Your task to perform on an android device: Open display settings Image 0: 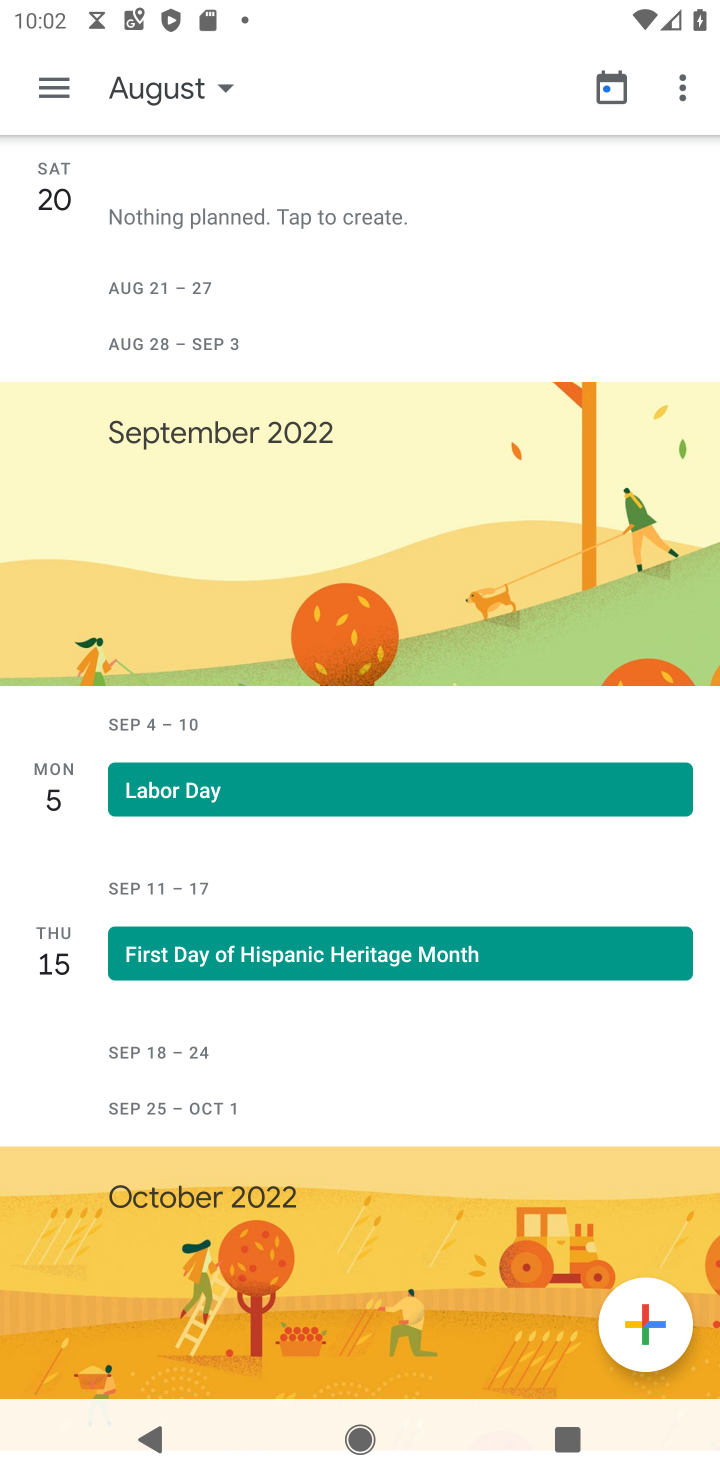
Step 0: press home button
Your task to perform on an android device: Open display settings Image 1: 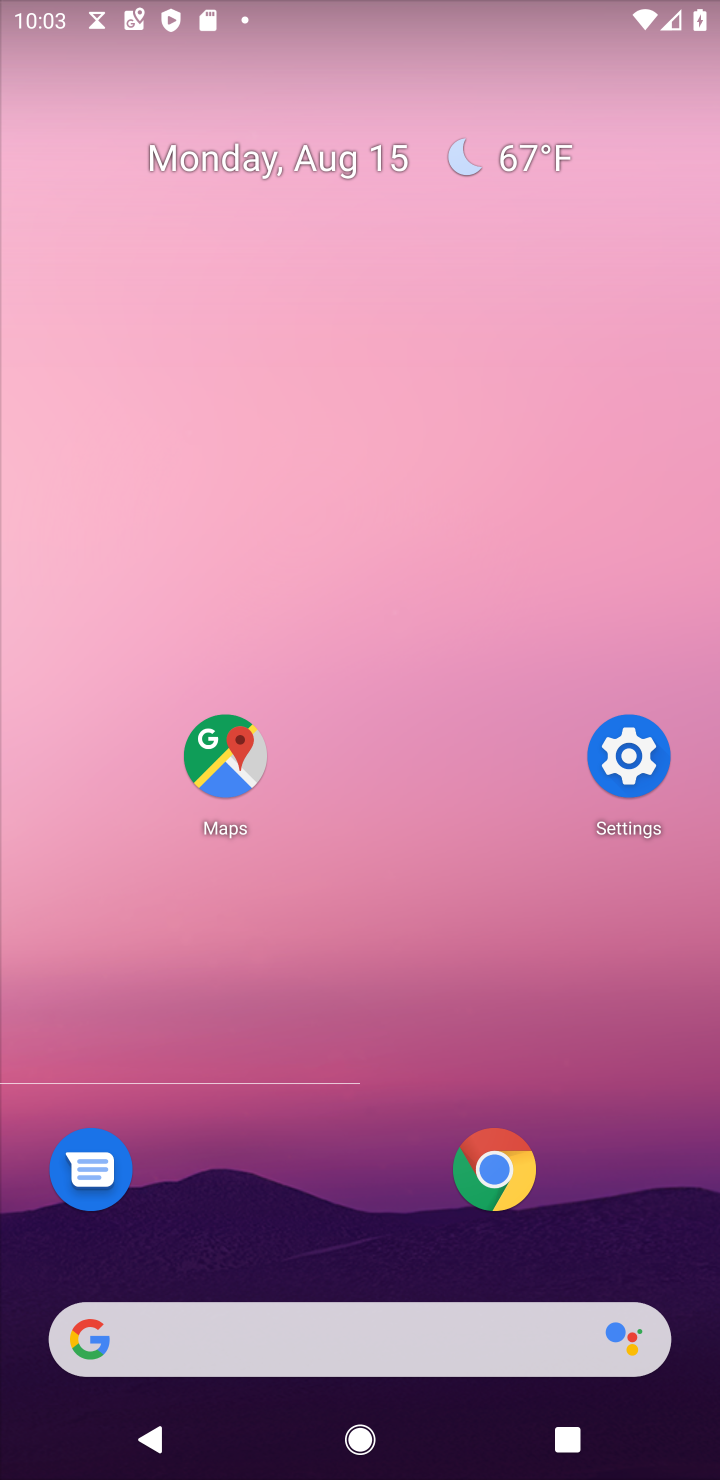
Step 1: click (616, 766)
Your task to perform on an android device: Open display settings Image 2: 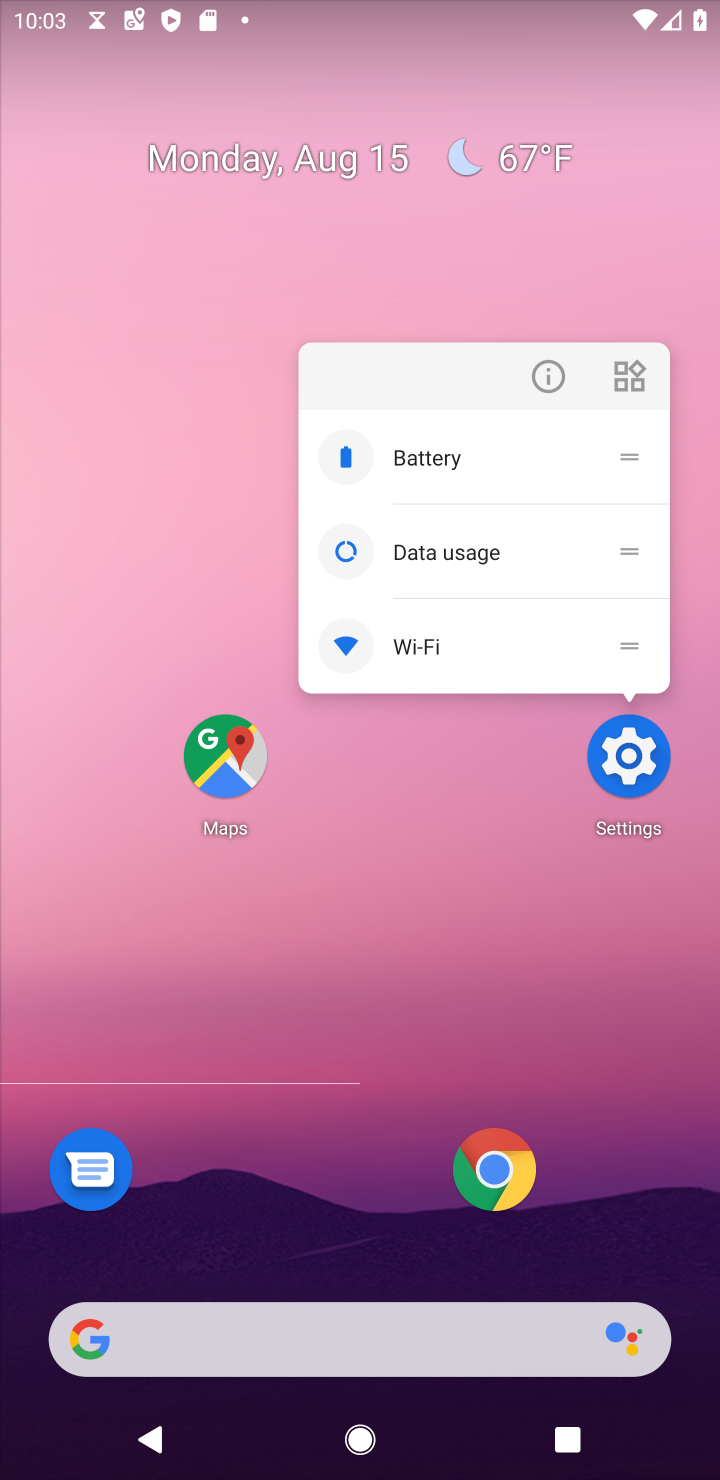
Step 2: click (636, 746)
Your task to perform on an android device: Open display settings Image 3: 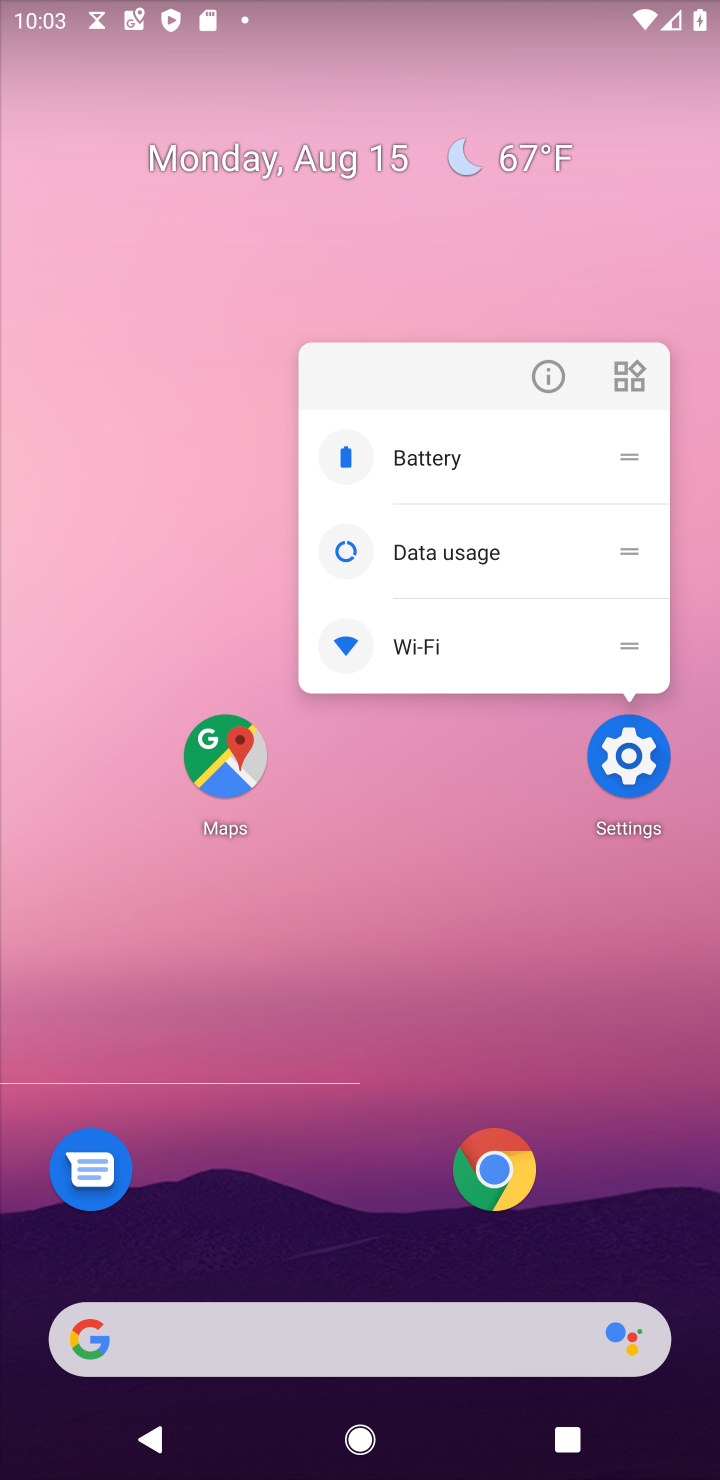
Step 3: click (636, 748)
Your task to perform on an android device: Open display settings Image 4: 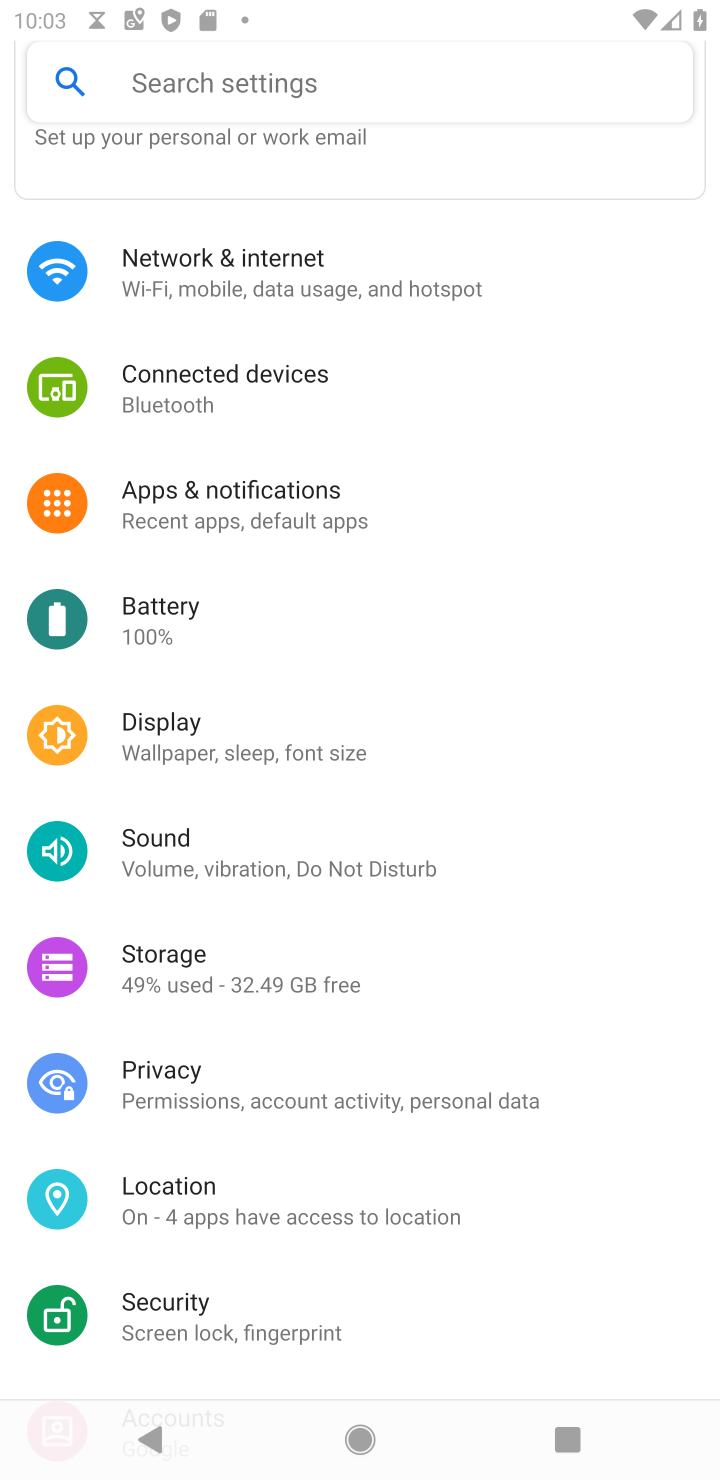
Step 4: click (636, 748)
Your task to perform on an android device: Open display settings Image 5: 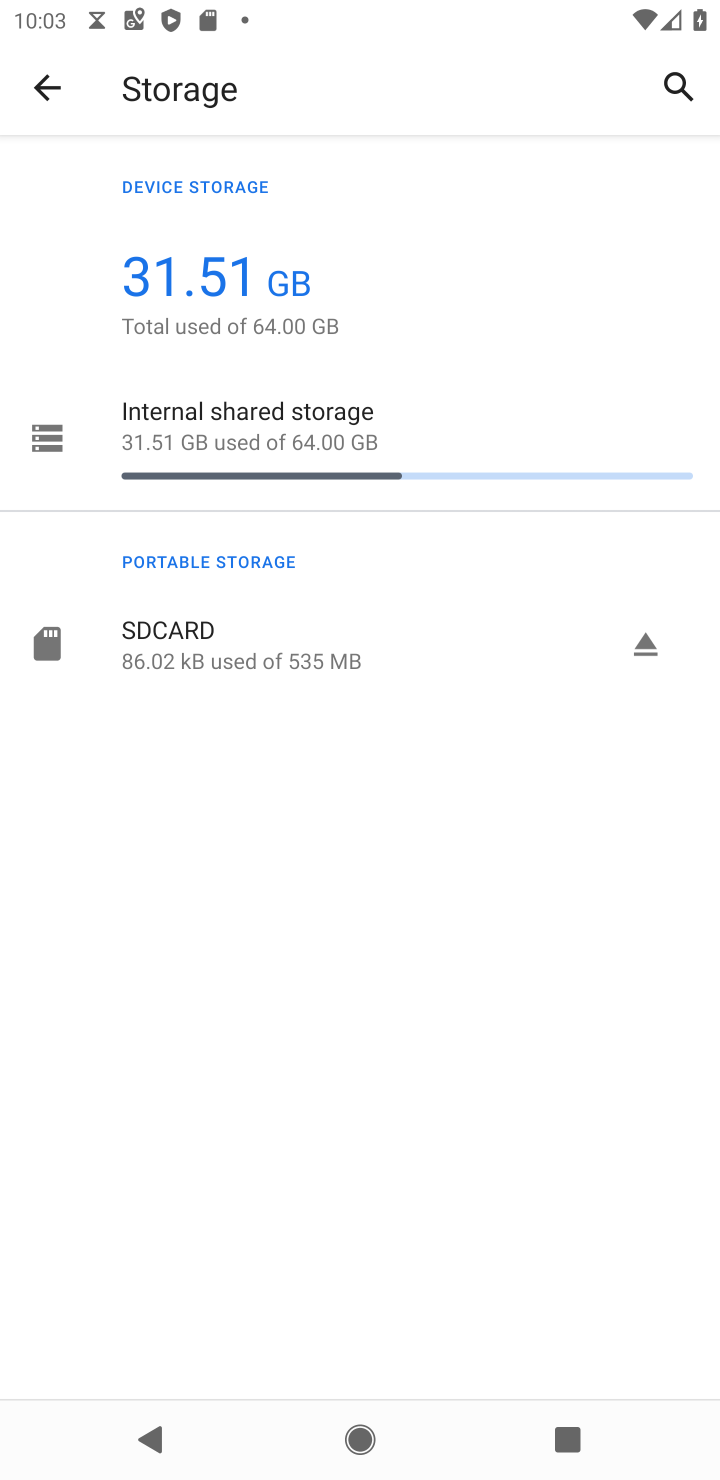
Step 5: click (258, 528)
Your task to perform on an android device: Open display settings Image 6: 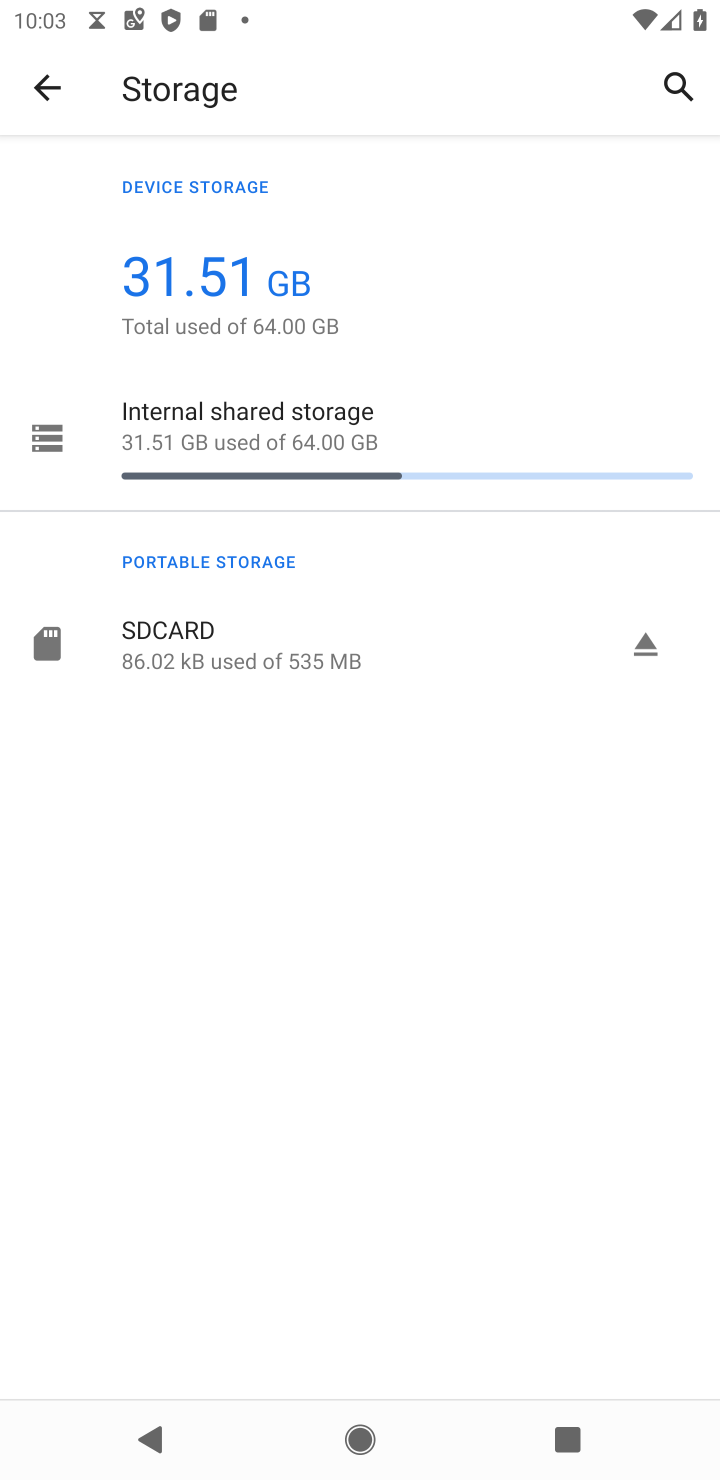
Step 6: click (39, 84)
Your task to perform on an android device: Open display settings Image 7: 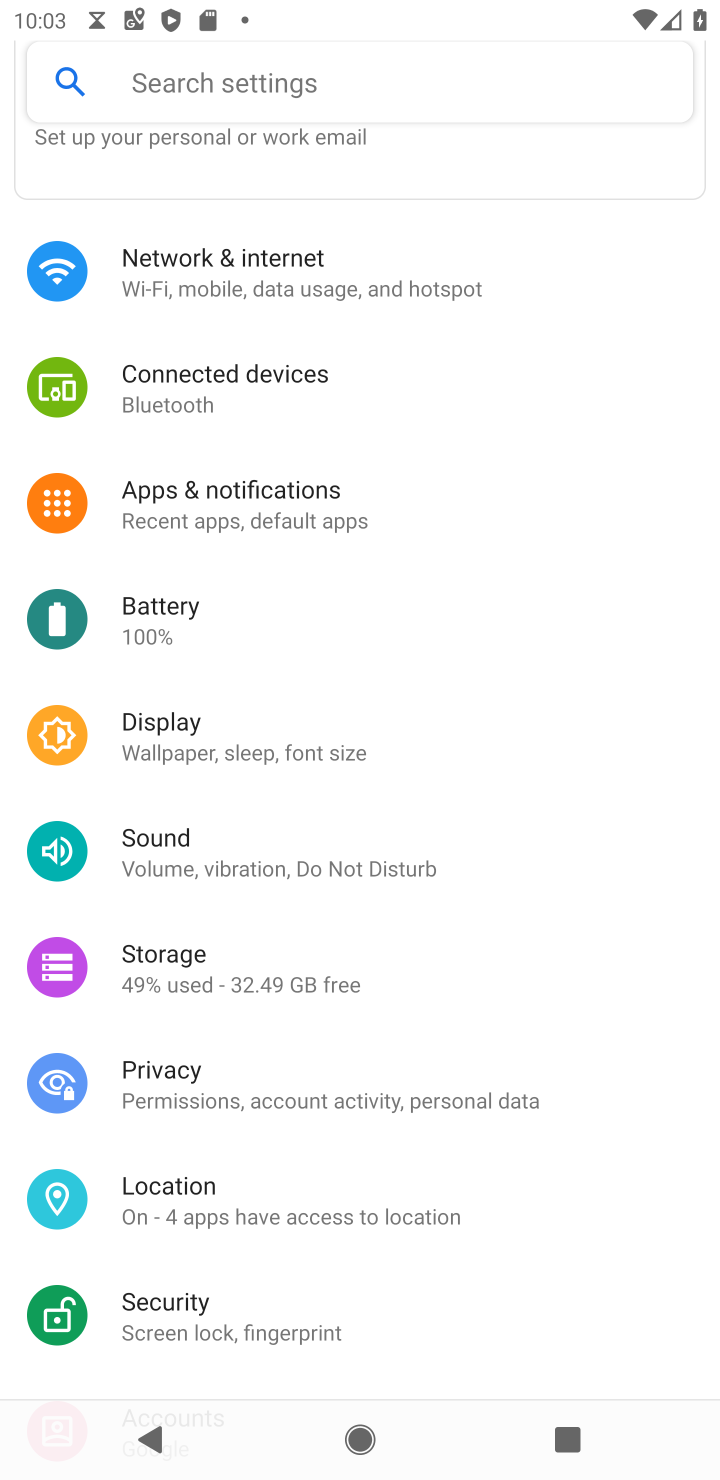
Step 7: click (215, 737)
Your task to perform on an android device: Open display settings Image 8: 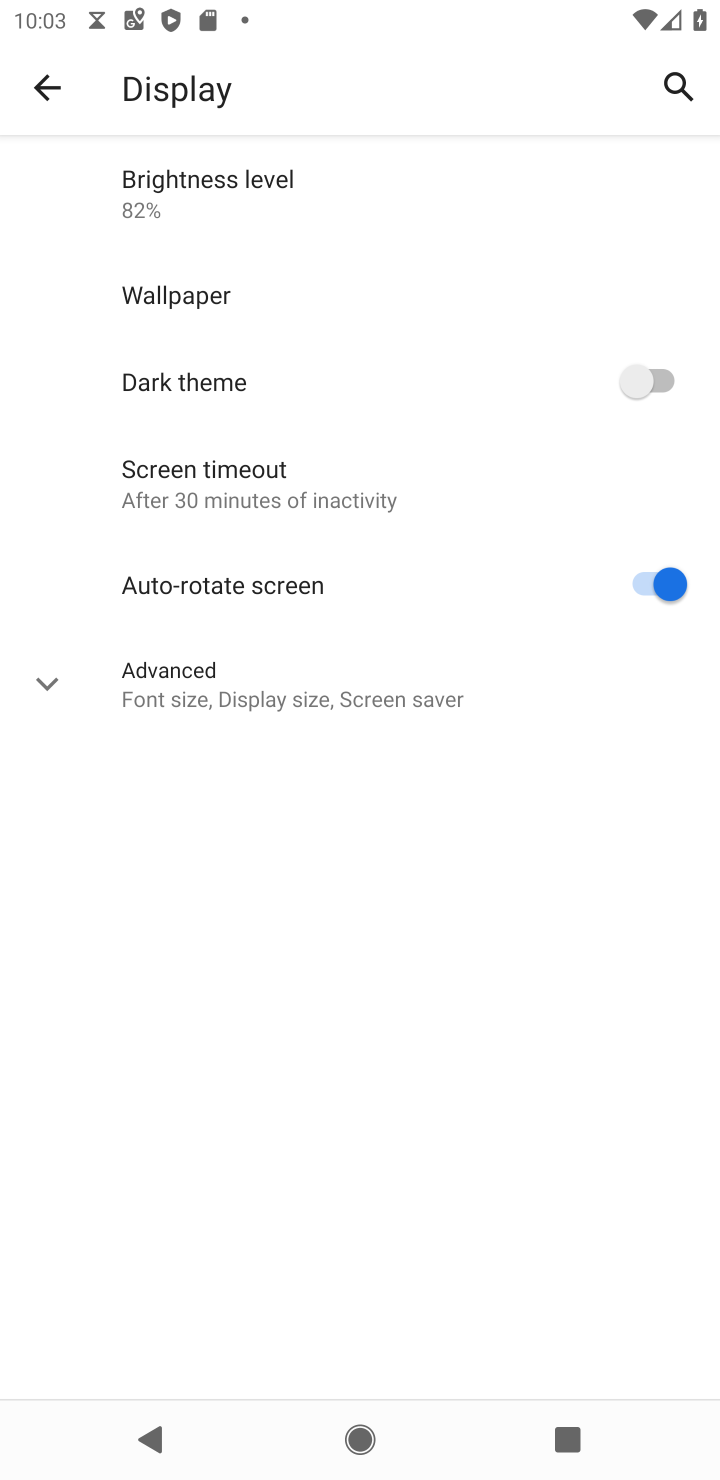
Step 8: task complete